Your task to perform on an android device: toggle notification dots Image 0: 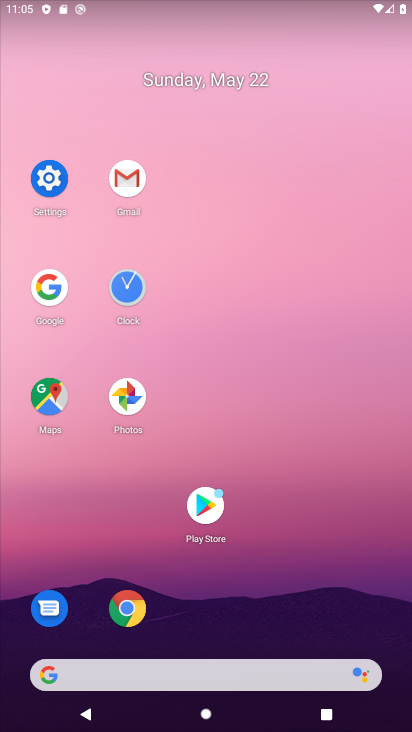
Step 0: click (47, 184)
Your task to perform on an android device: toggle notification dots Image 1: 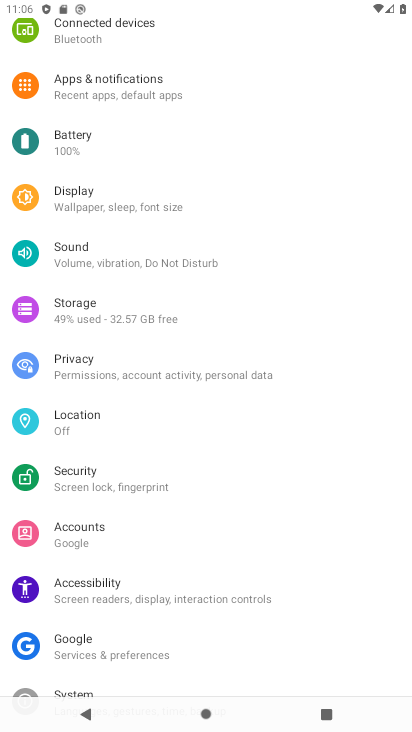
Step 1: click (169, 89)
Your task to perform on an android device: toggle notification dots Image 2: 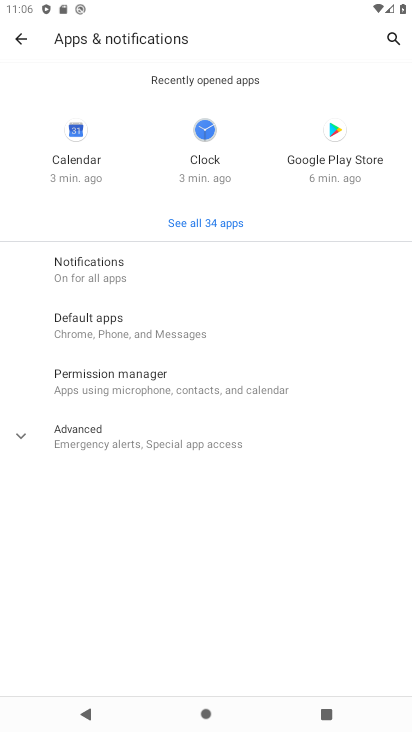
Step 2: click (151, 297)
Your task to perform on an android device: toggle notification dots Image 3: 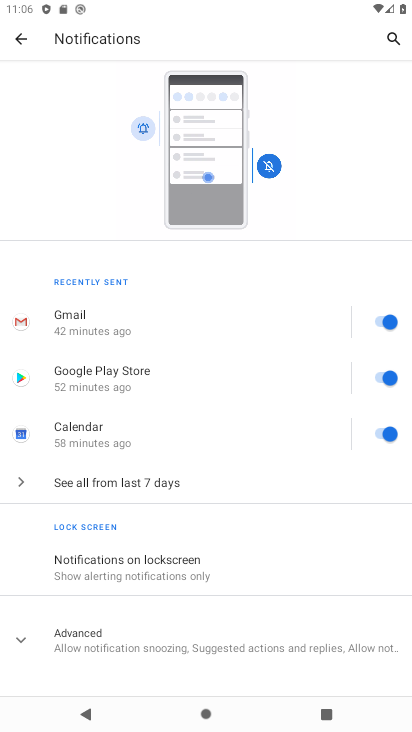
Step 3: drag from (208, 636) to (228, 224)
Your task to perform on an android device: toggle notification dots Image 4: 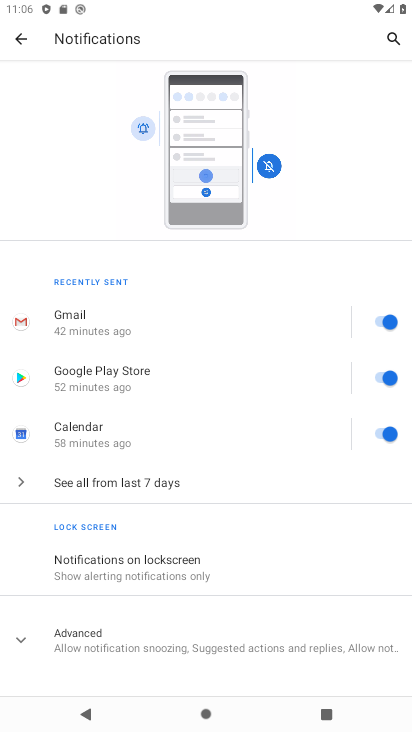
Step 4: click (193, 623)
Your task to perform on an android device: toggle notification dots Image 5: 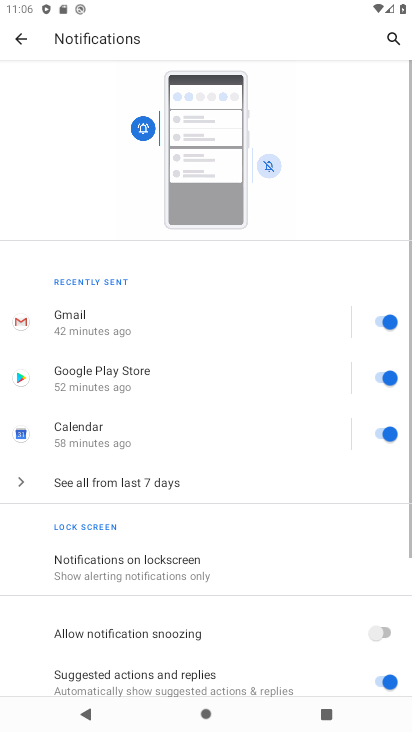
Step 5: drag from (222, 564) to (207, 229)
Your task to perform on an android device: toggle notification dots Image 6: 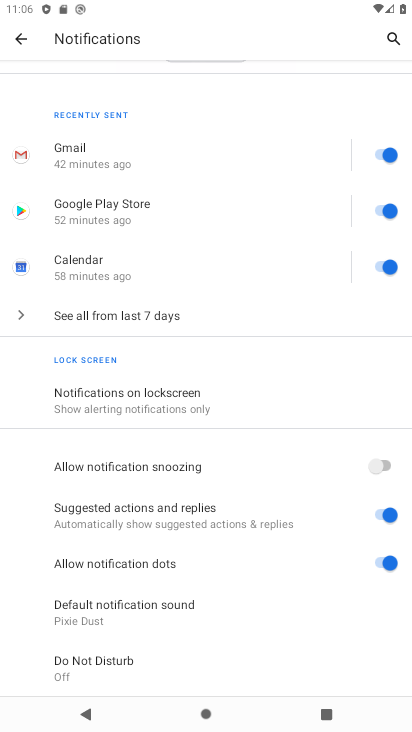
Step 6: click (379, 560)
Your task to perform on an android device: toggle notification dots Image 7: 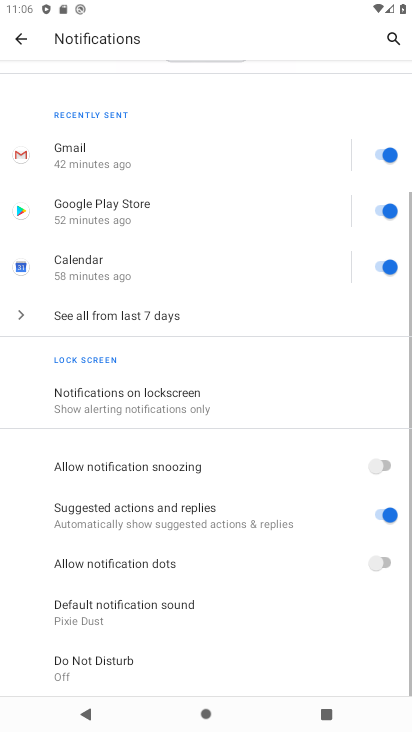
Step 7: task complete